Your task to perform on an android device: Open network settings Image 0: 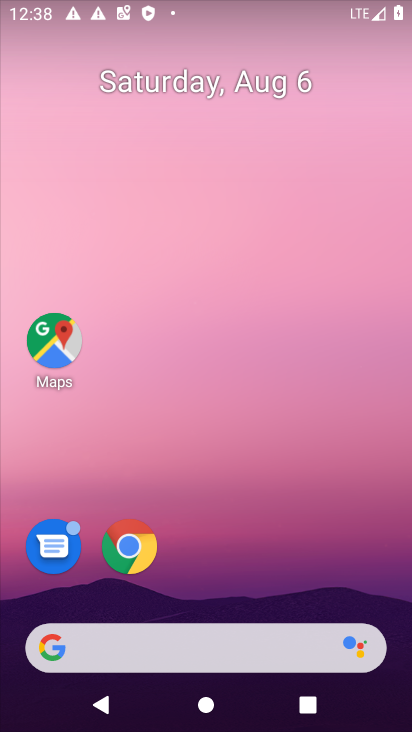
Step 0: drag from (372, 584) to (332, 53)
Your task to perform on an android device: Open network settings Image 1: 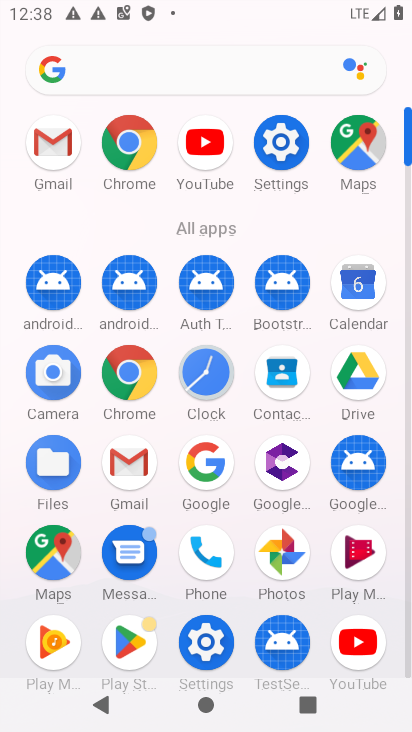
Step 1: click (203, 640)
Your task to perform on an android device: Open network settings Image 2: 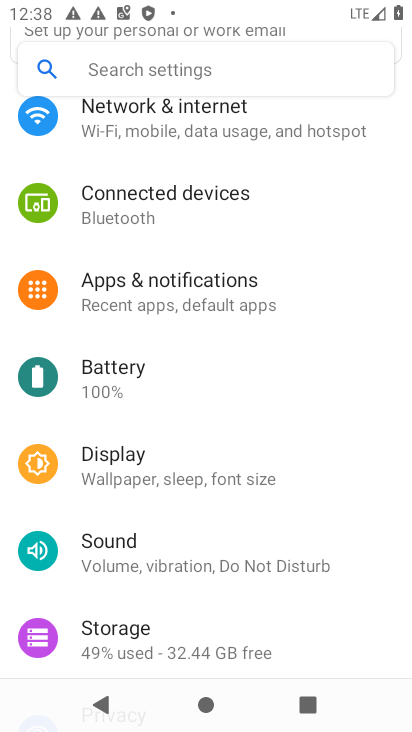
Step 2: click (124, 110)
Your task to perform on an android device: Open network settings Image 3: 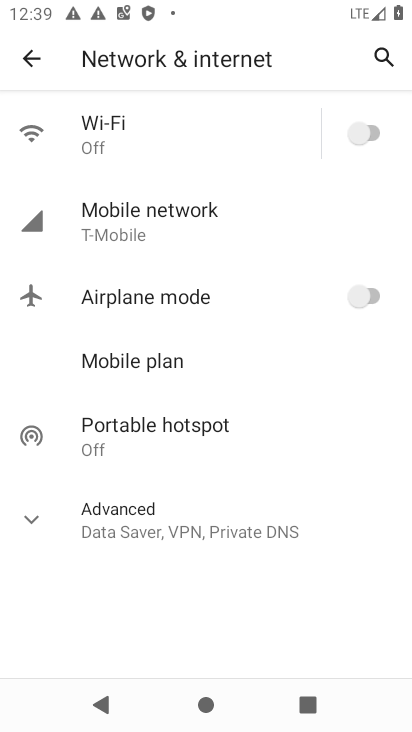
Step 3: click (138, 215)
Your task to perform on an android device: Open network settings Image 4: 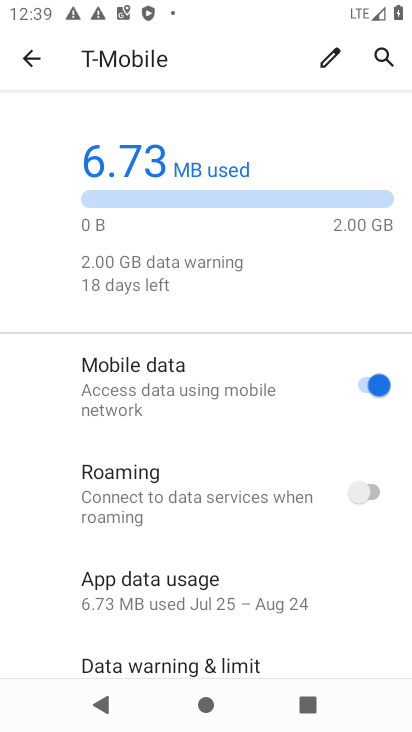
Step 4: task complete